Your task to perform on an android device: Open network settings Image 0: 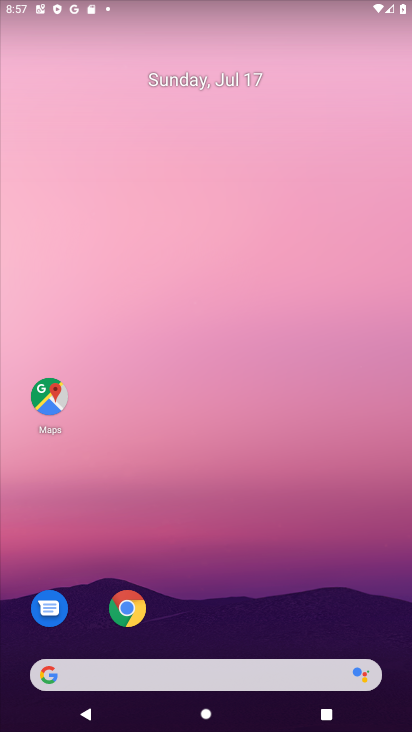
Step 0: drag from (187, 673) to (243, 295)
Your task to perform on an android device: Open network settings Image 1: 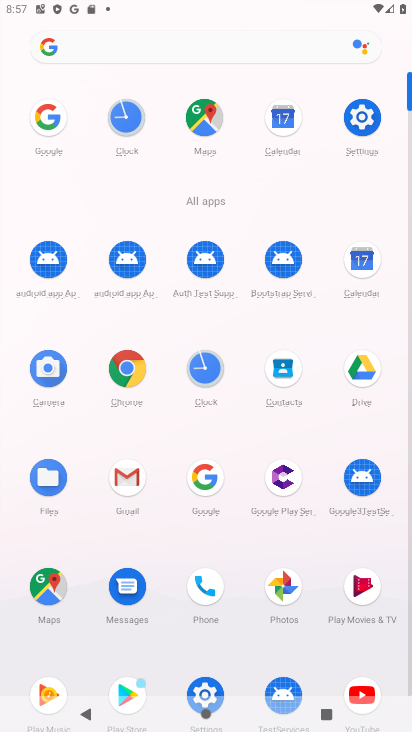
Step 1: click (354, 122)
Your task to perform on an android device: Open network settings Image 2: 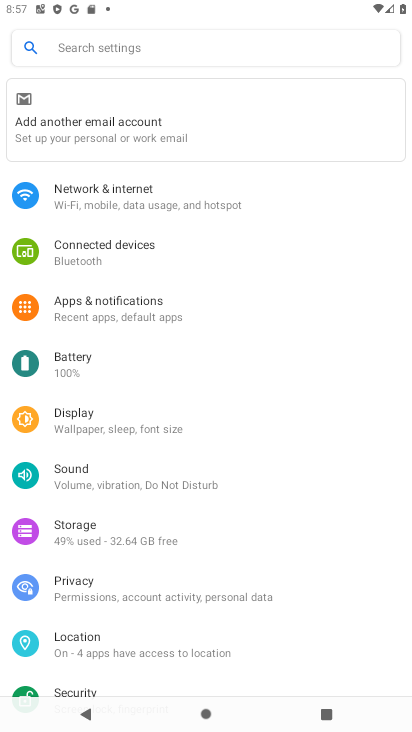
Step 2: click (138, 212)
Your task to perform on an android device: Open network settings Image 3: 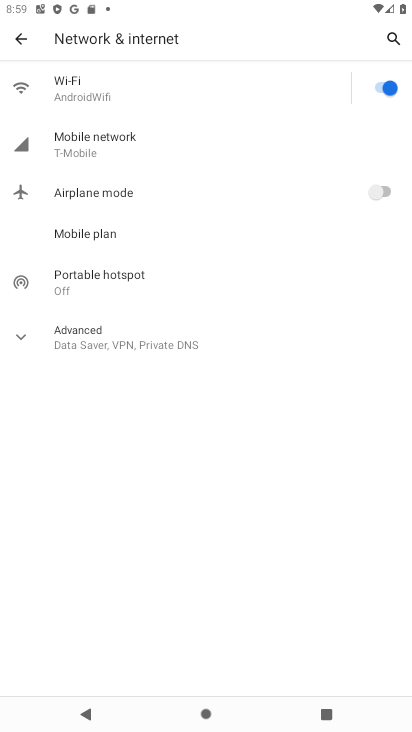
Step 3: task complete